Your task to perform on an android device: turn off data saver in the chrome app Image 0: 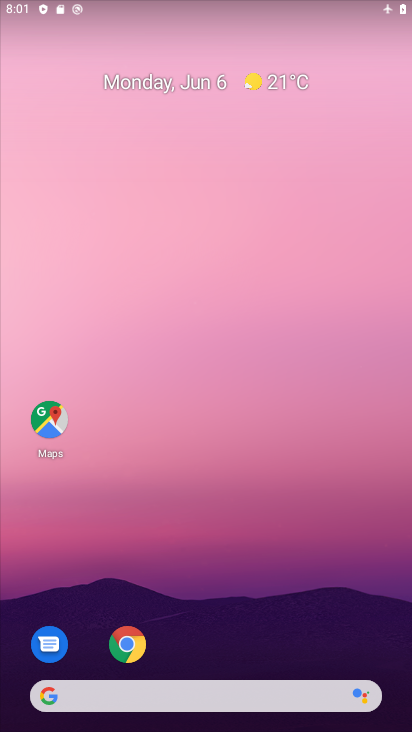
Step 0: drag from (189, 672) to (236, 173)
Your task to perform on an android device: turn off data saver in the chrome app Image 1: 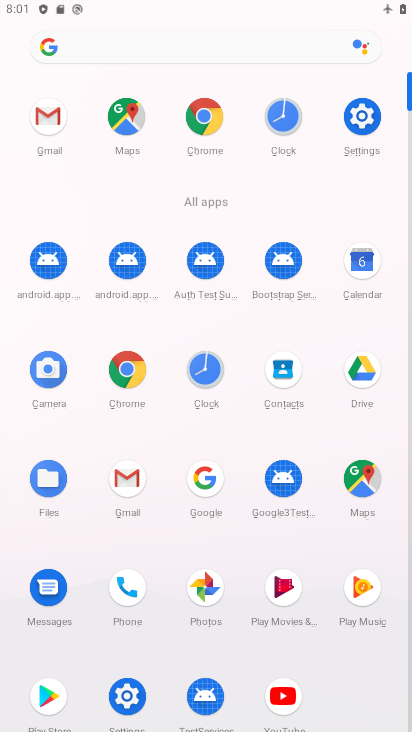
Step 1: click (118, 380)
Your task to perform on an android device: turn off data saver in the chrome app Image 2: 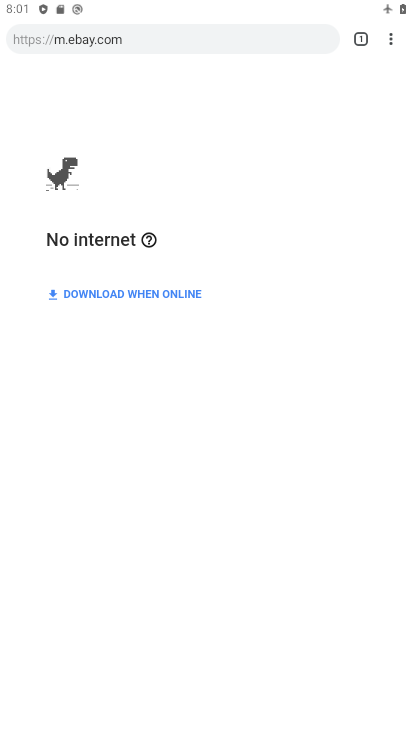
Step 2: drag from (392, 38) to (261, 434)
Your task to perform on an android device: turn off data saver in the chrome app Image 3: 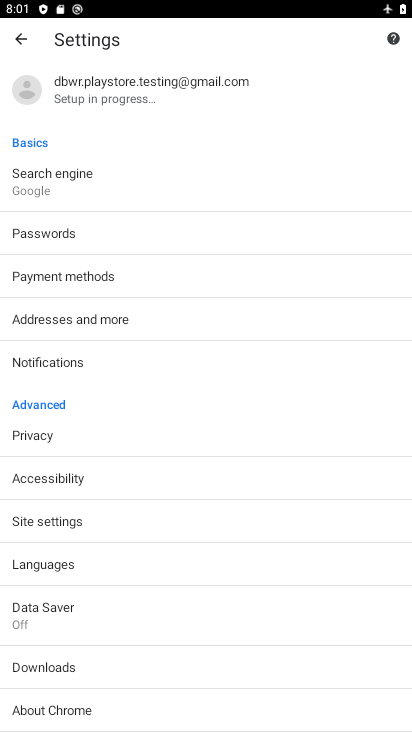
Step 3: click (56, 611)
Your task to perform on an android device: turn off data saver in the chrome app Image 4: 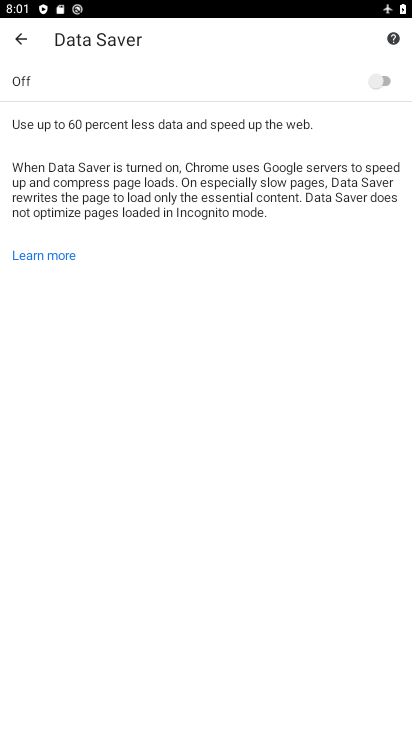
Step 4: task complete